Your task to perform on an android device: Go to location settings Image 0: 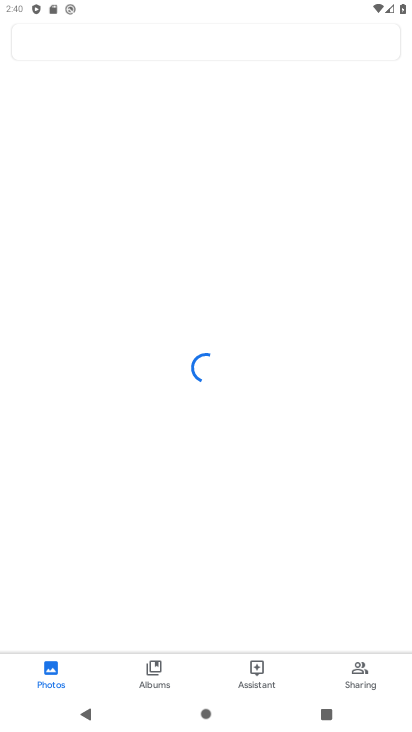
Step 0: press home button
Your task to perform on an android device: Go to location settings Image 1: 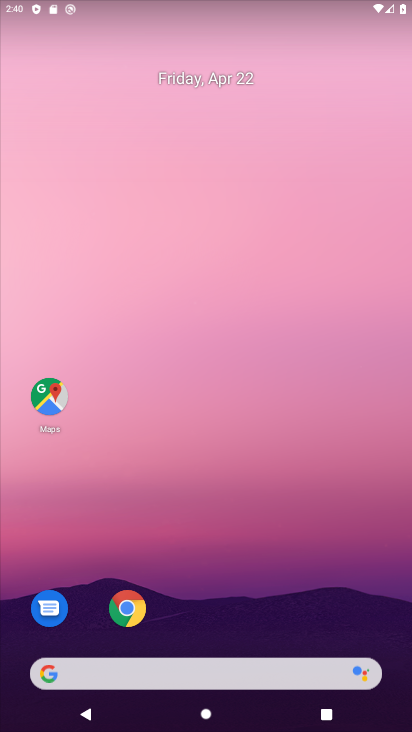
Step 1: drag from (208, 653) to (238, 7)
Your task to perform on an android device: Go to location settings Image 2: 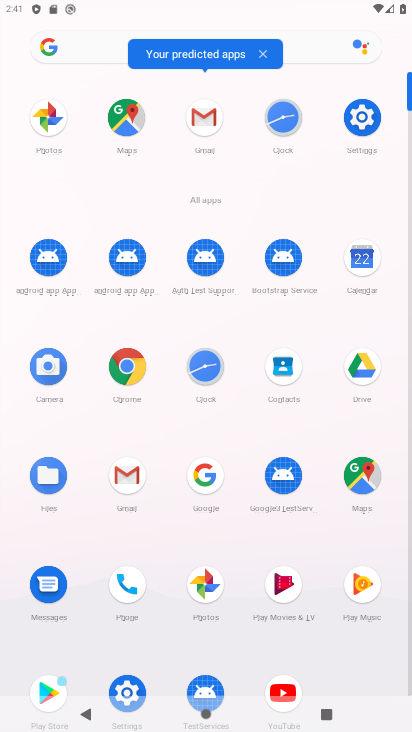
Step 2: click (124, 687)
Your task to perform on an android device: Go to location settings Image 3: 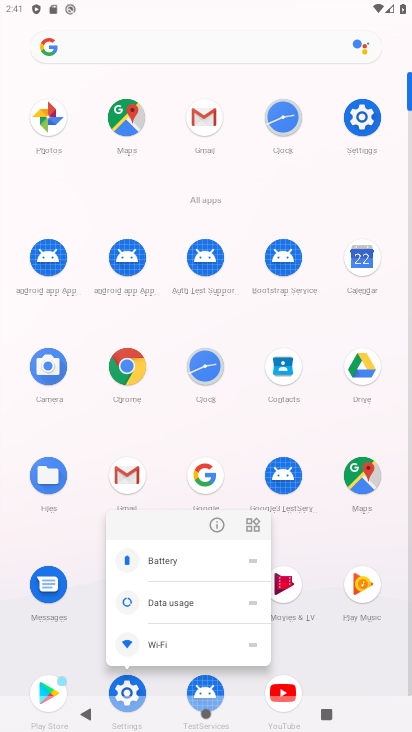
Step 3: click (125, 686)
Your task to perform on an android device: Go to location settings Image 4: 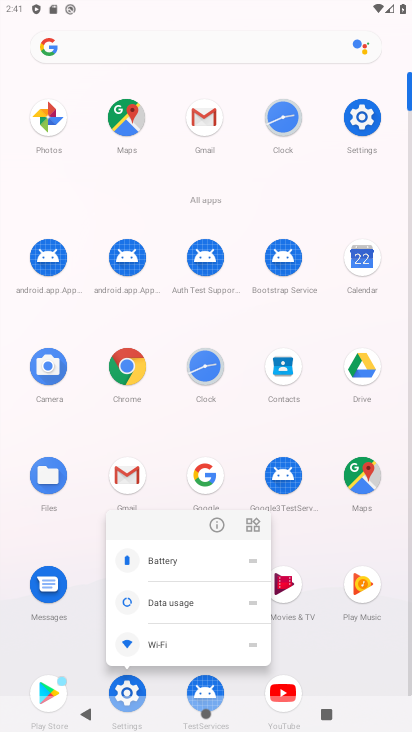
Step 4: click (125, 686)
Your task to perform on an android device: Go to location settings Image 5: 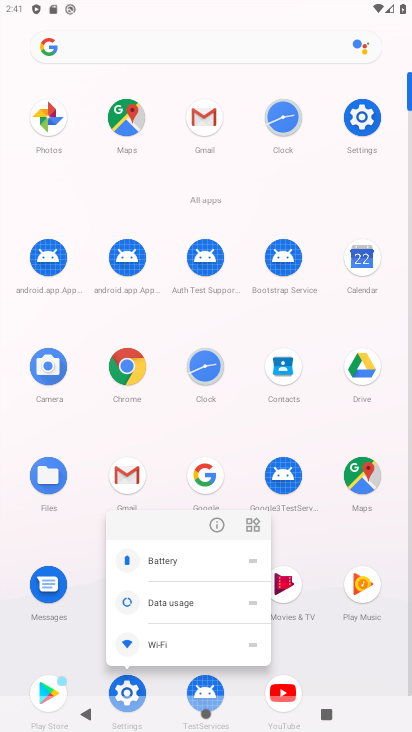
Step 5: click (125, 686)
Your task to perform on an android device: Go to location settings Image 6: 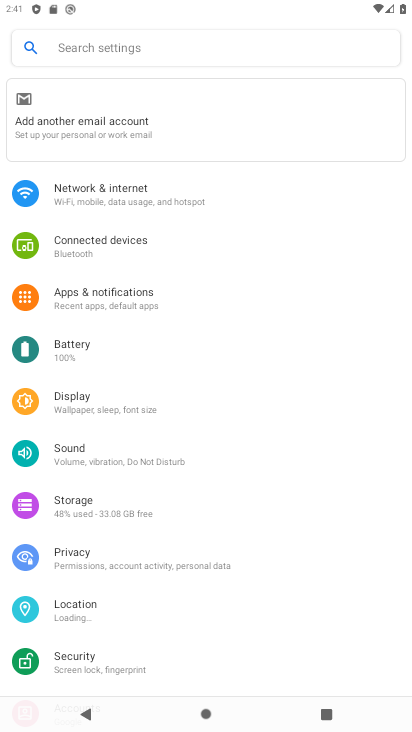
Step 6: click (65, 524)
Your task to perform on an android device: Go to location settings Image 7: 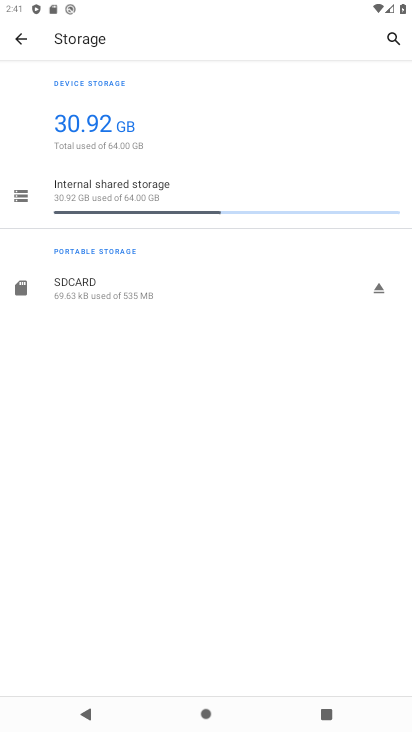
Step 7: click (42, 48)
Your task to perform on an android device: Go to location settings Image 8: 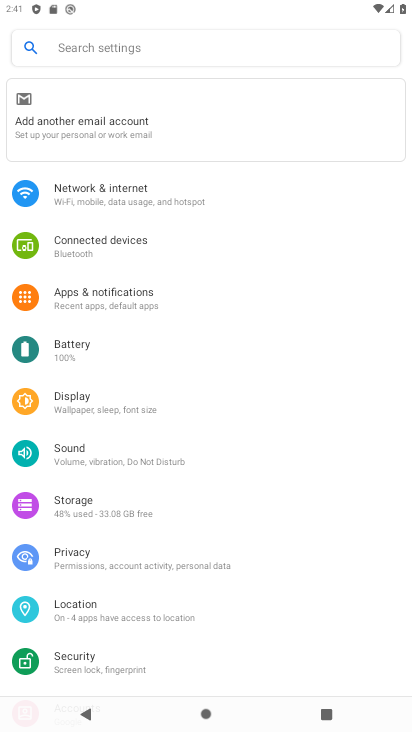
Step 8: click (86, 606)
Your task to perform on an android device: Go to location settings Image 9: 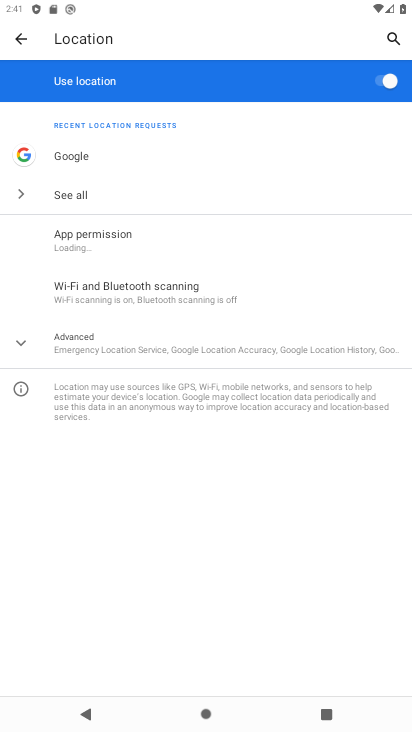
Step 9: task complete